Your task to perform on an android device: turn off location Image 0: 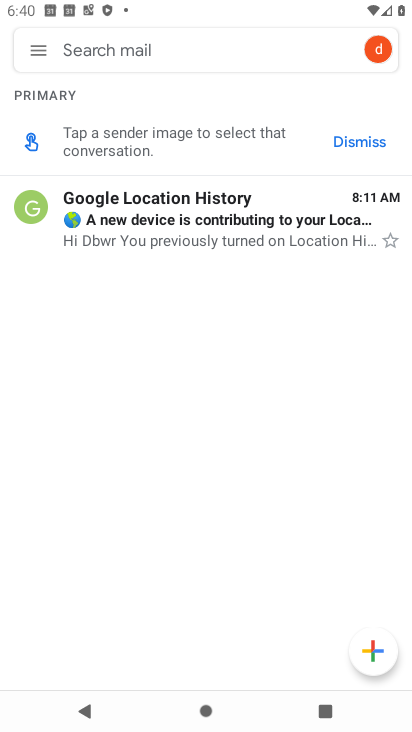
Step 0: press home button
Your task to perform on an android device: turn off location Image 1: 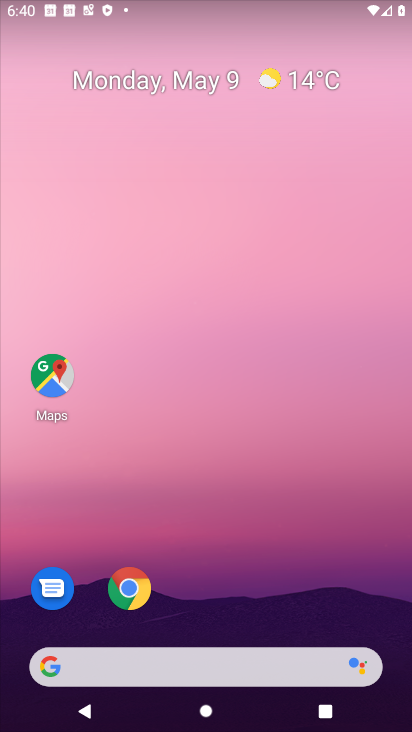
Step 1: drag from (345, 527) to (260, 87)
Your task to perform on an android device: turn off location Image 2: 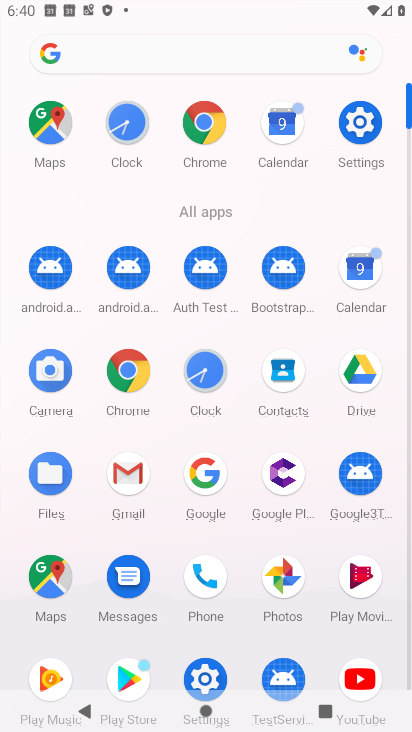
Step 2: click (365, 136)
Your task to perform on an android device: turn off location Image 3: 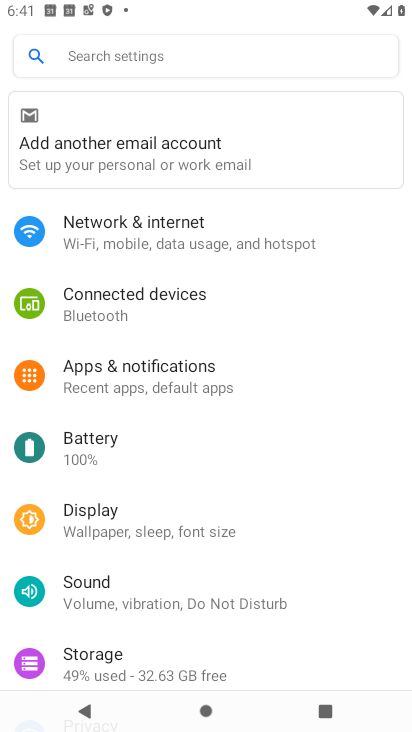
Step 3: drag from (171, 601) to (134, 263)
Your task to perform on an android device: turn off location Image 4: 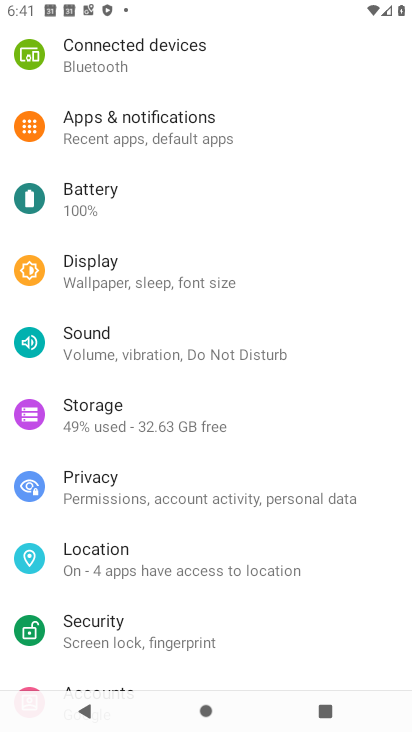
Step 4: click (138, 580)
Your task to perform on an android device: turn off location Image 5: 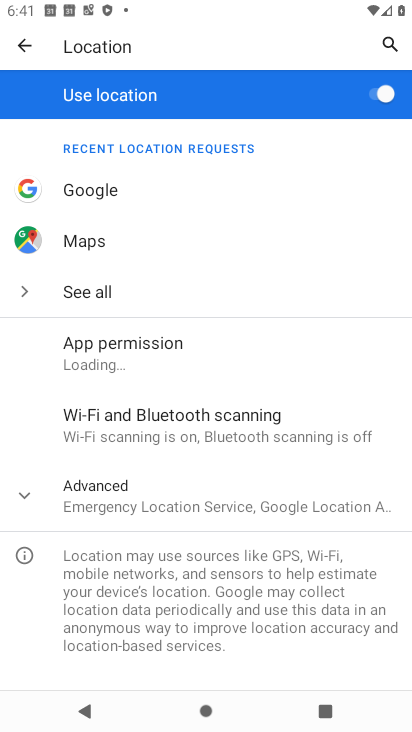
Step 5: click (386, 98)
Your task to perform on an android device: turn off location Image 6: 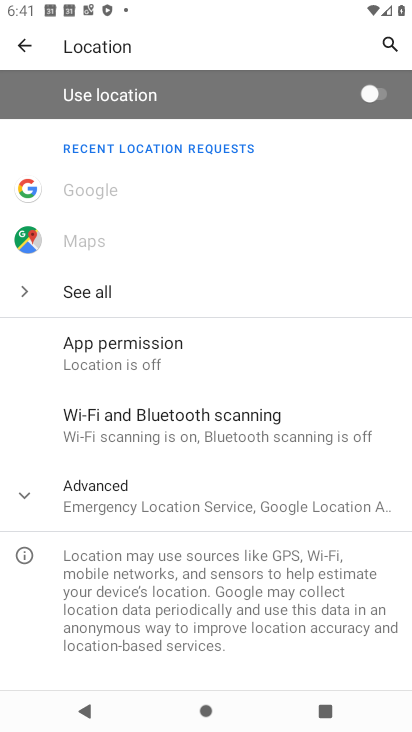
Step 6: task complete